Your task to perform on an android device: Search for seafood restaurants on Google Maps Image 0: 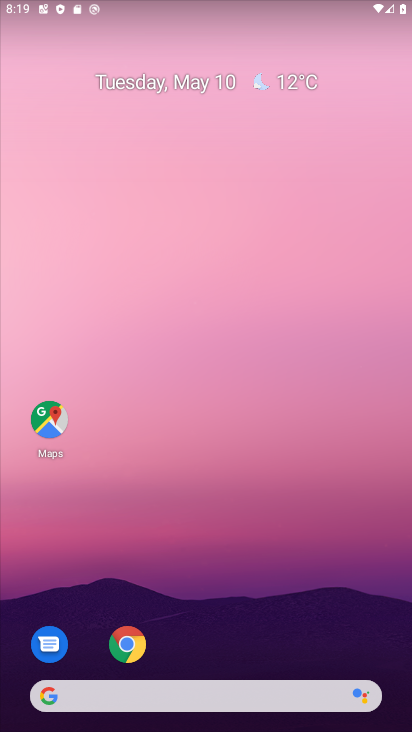
Step 0: click (47, 418)
Your task to perform on an android device: Search for seafood restaurants on Google Maps Image 1: 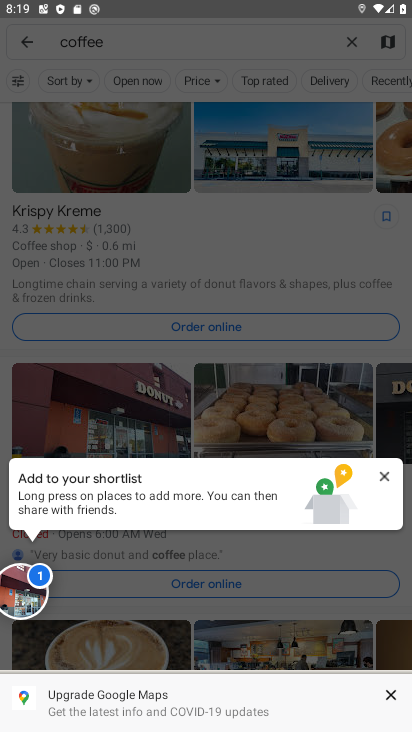
Step 1: click (383, 472)
Your task to perform on an android device: Search for seafood restaurants on Google Maps Image 2: 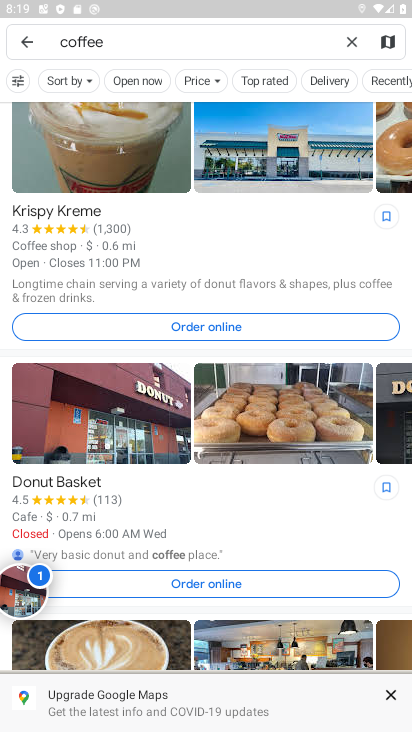
Step 2: click (351, 43)
Your task to perform on an android device: Search for seafood restaurants on Google Maps Image 3: 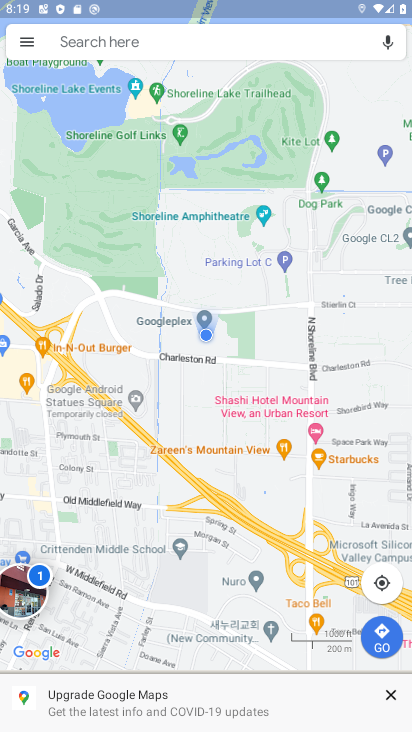
Step 3: click (142, 41)
Your task to perform on an android device: Search for seafood restaurants on Google Maps Image 4: 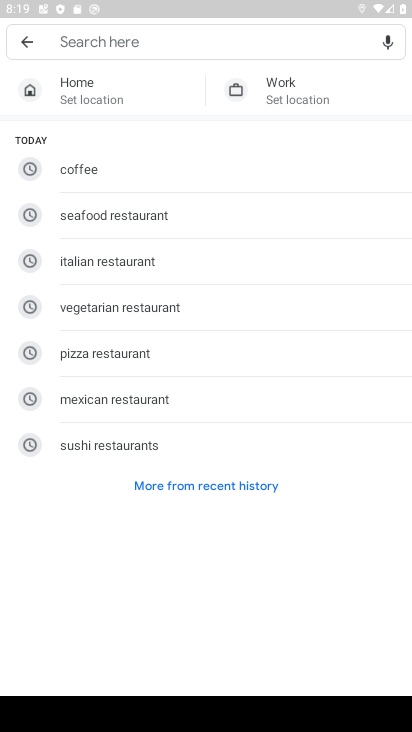
Step 4: type "seafood restaurants"
Your task to perform on an android device: Search for seafood restaurants on Google Maps Image 5: 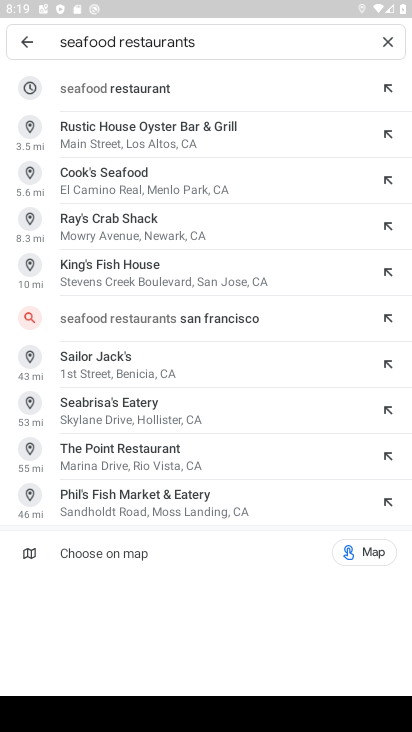
Step 5: click (113, 96)
Your task to perform on an android device: Search for seafood restaurants on Google Maps Image 6: 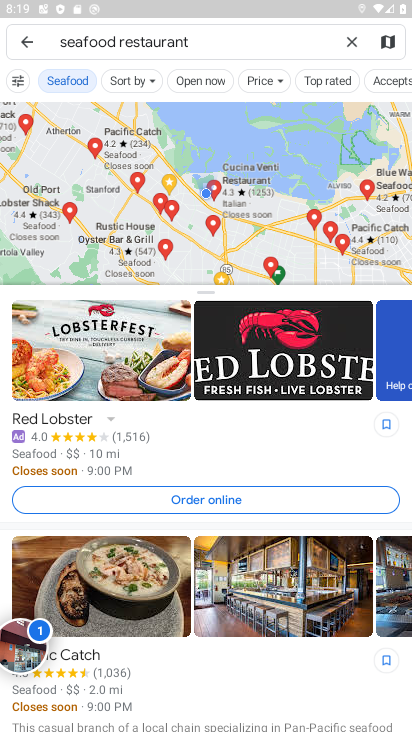
Step 6: task complete